Your task to perform on an android device: Go to privacy settings Image 0: 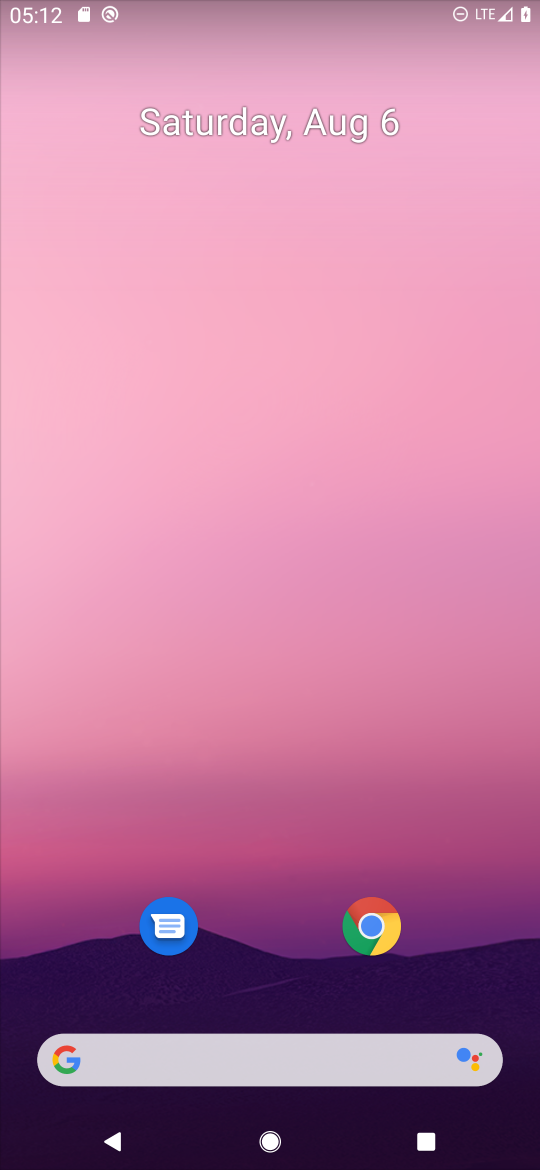
Step 0: drag from (268, 953) to (280, 329)
Your task to perform on an android device: Go to privacy settings Image 1: 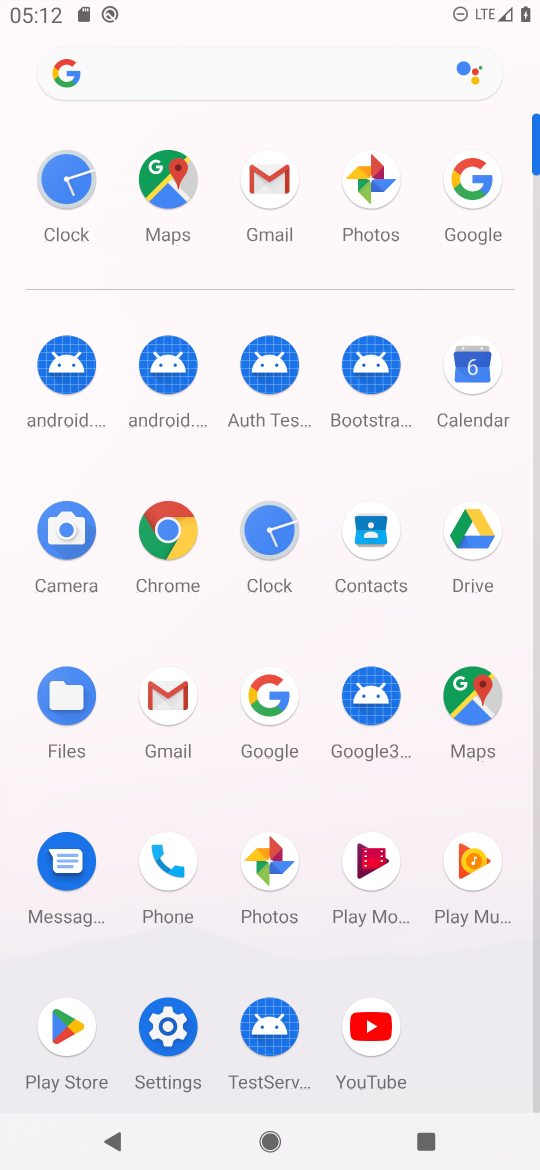
Step 1: click (162, 1026)
Your task to perform on an android device: Go to privacy settings Image 2: 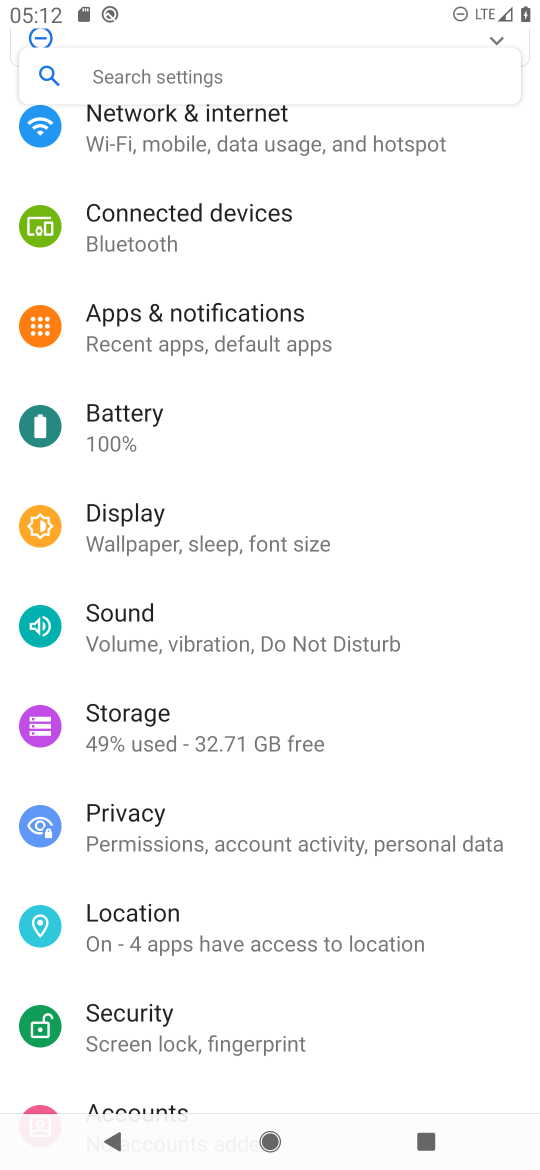
Step 2: click (210, 838)
Your task to perform on an android device: Go to privacy settings Image 3: 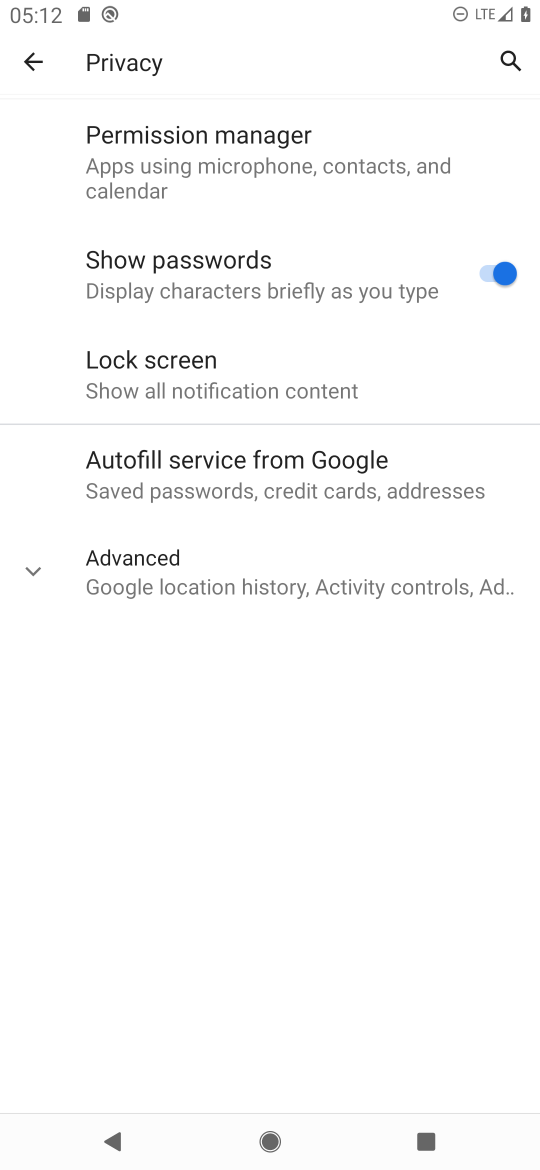
Step 3: task complete